Your task to perform on an android device: toggle wifi Image 0: 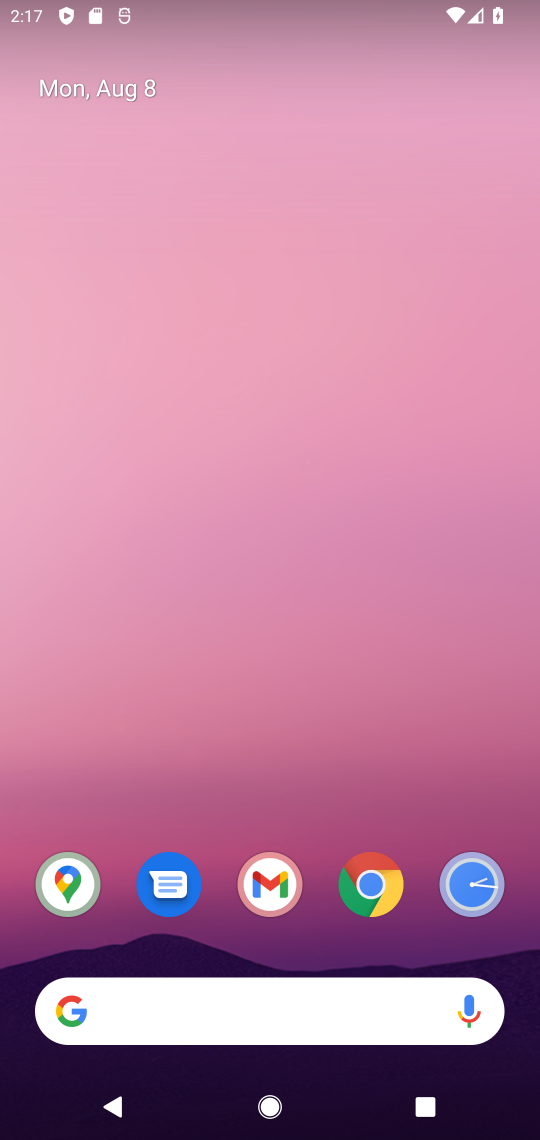
Step 0: drag from (250, 761) to (265, 238)
Your task to perform on an android device: toggle wifi Image 1: 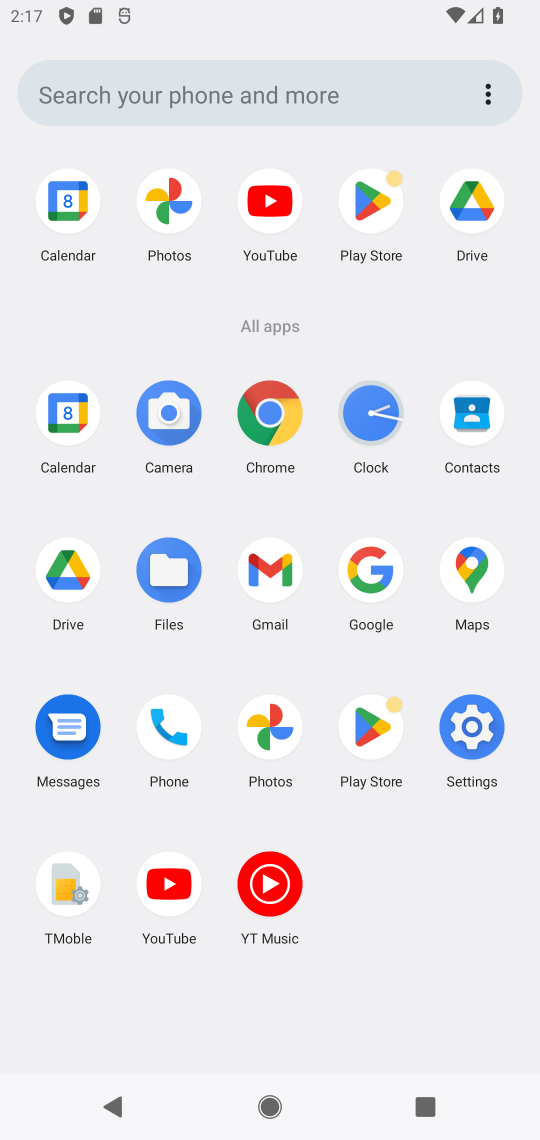
Step 1: click (461, 717)
Your task to perform on an android device: toggle wifi Image 2: 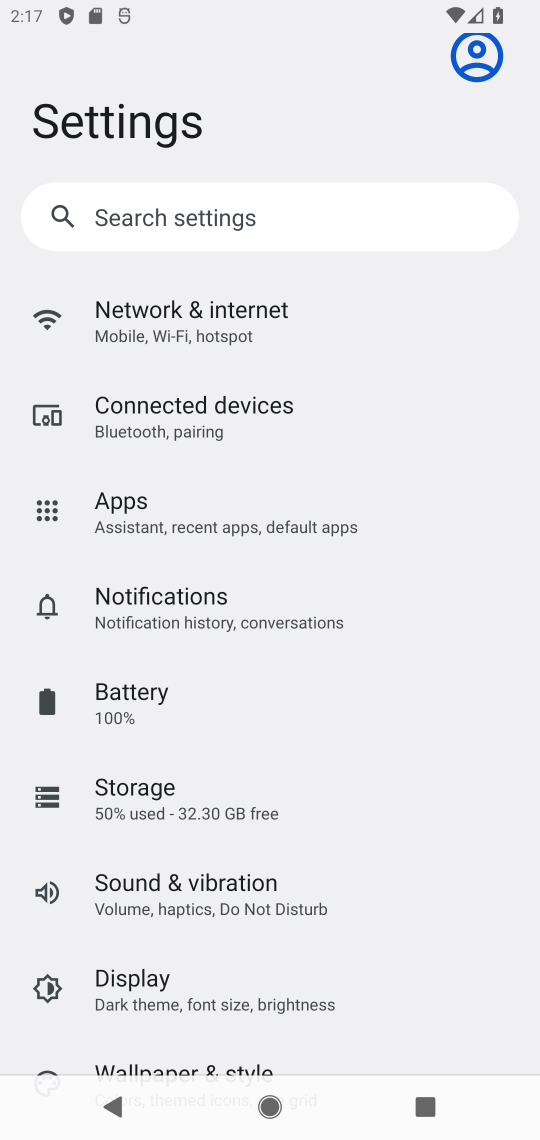
Step 2: click (206, 308)
Your task to perform on an android device: toggle wifi Image 3: 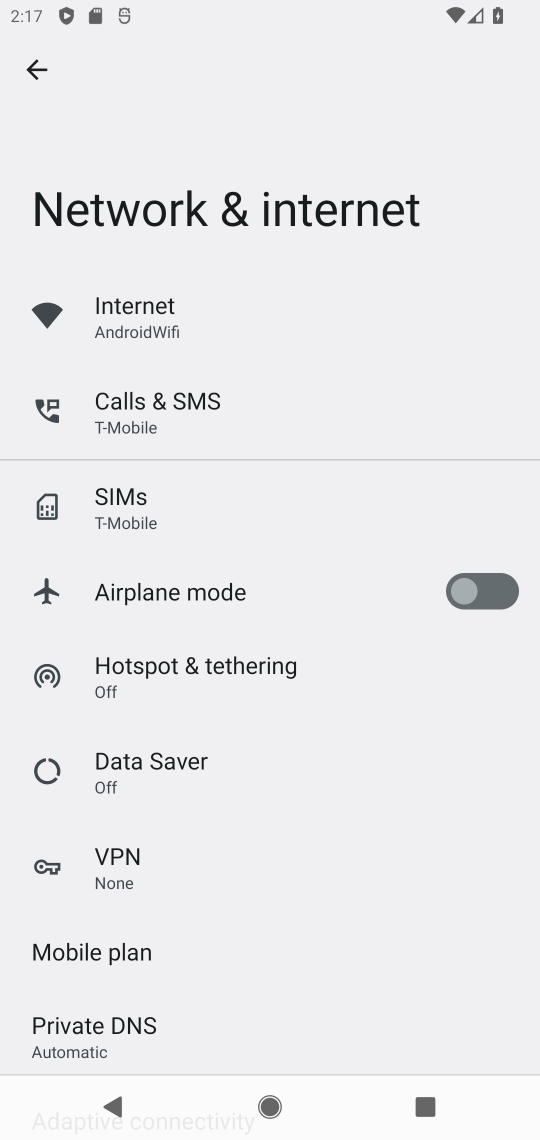
Step 3: click (141, 312)
Your task to perform on an android device: toggle wifi Image 4: 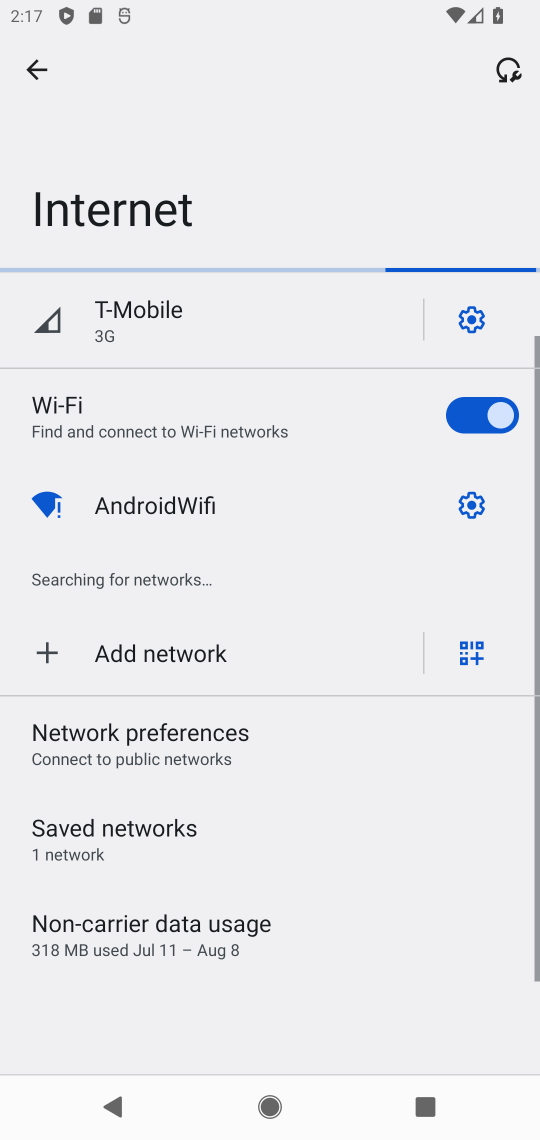
Step 4: click (497, 416)
Your task to perform on an android device: toggle wifi Image 5: 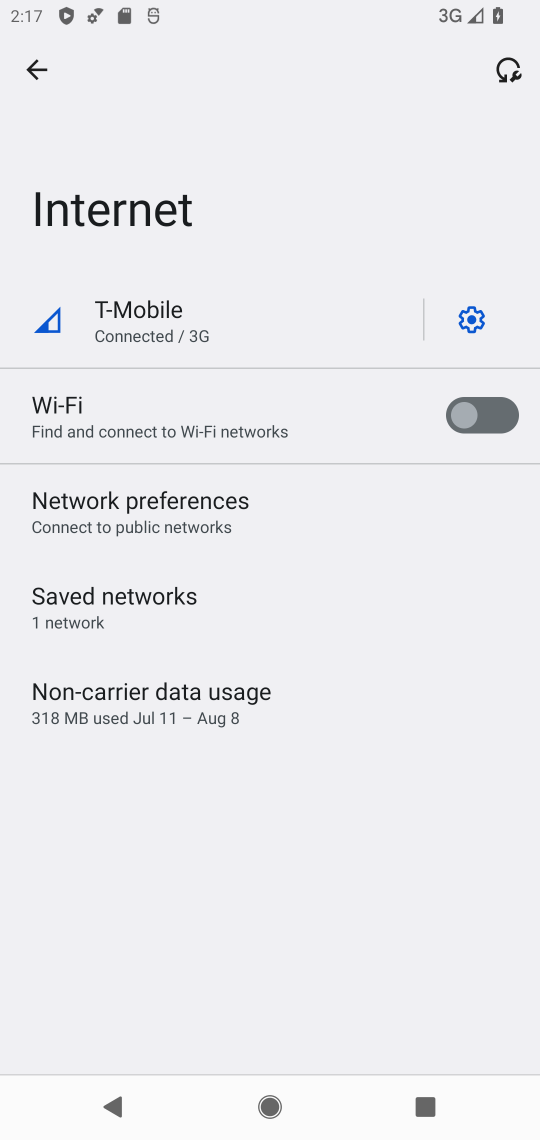
Step 5: task complete